Your task to perform on an android device: toggle show notifications on the lock screen Image 0: 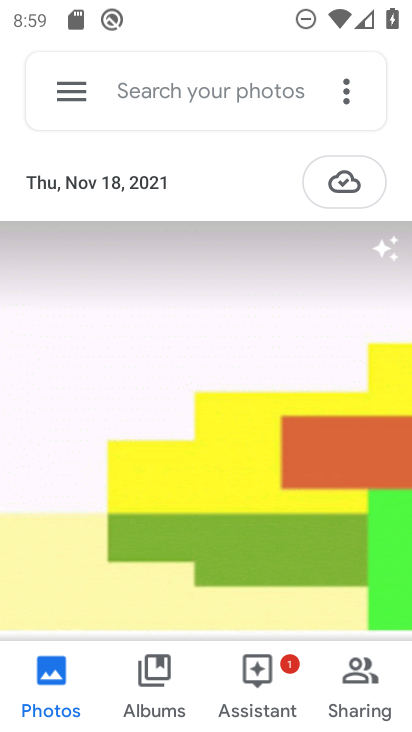
Step 0: press home button
Your task to perform on an android device: toggle show notifications on the lock screen Image 1: 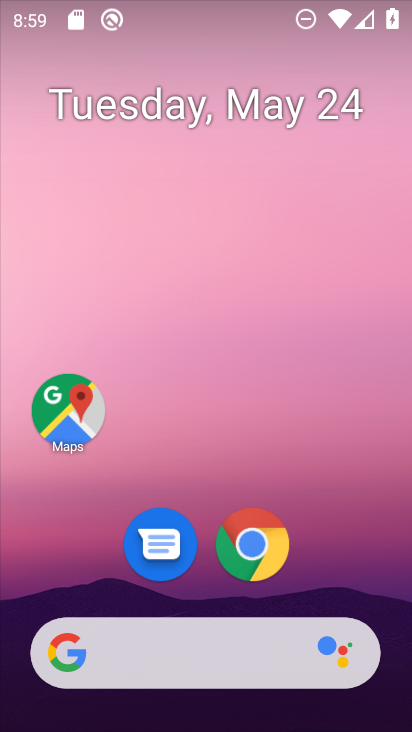
Step 1: drag from (362, 600) to (256, 158)
Your task to perform on an android device: toggle show notifications on the lock screen Image 2: 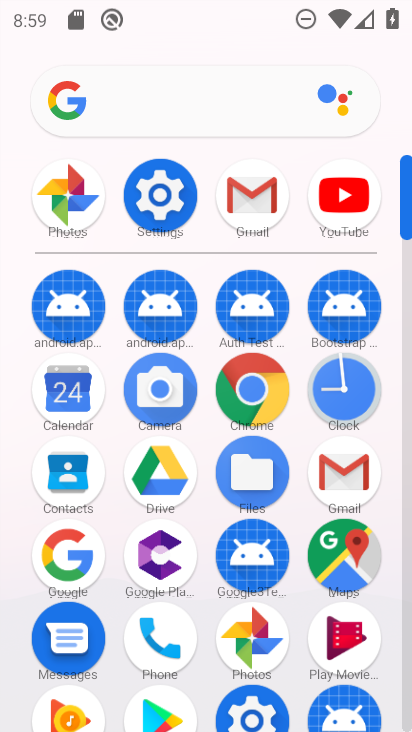
Step 2: click (175, 173)
Your task to perform on an android device: toggle show notifications on the lock screen Image 3: 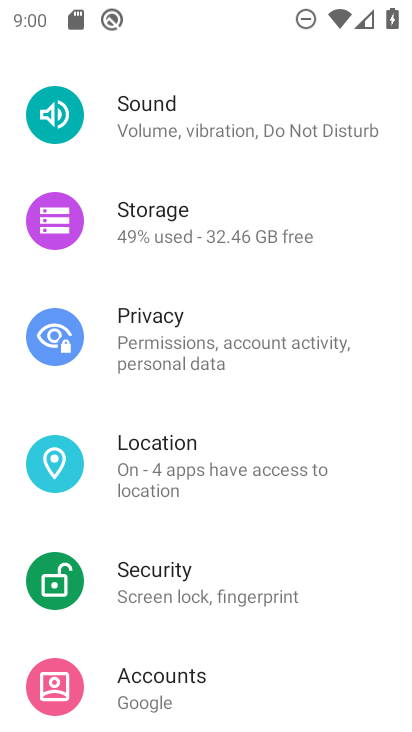
Step 3: drag from (234, 177) to (236, 651)
Your task to perform on an android device: toggle show notifications on the lock screen Image 4: 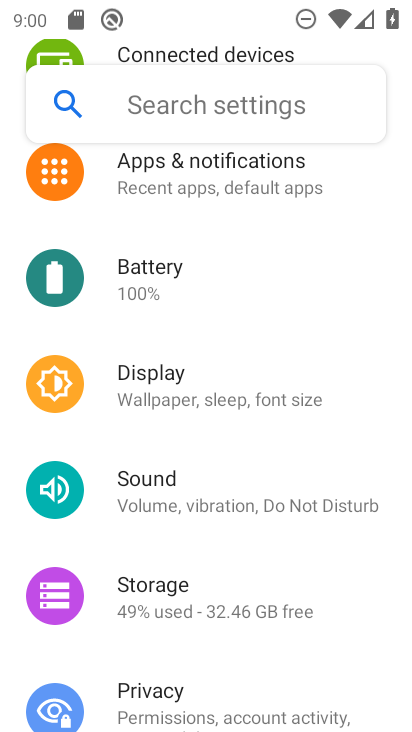
Step 4: click (191, 182)
Your task to perform on an android device: toggle show notifications on the lock screen Image 5: 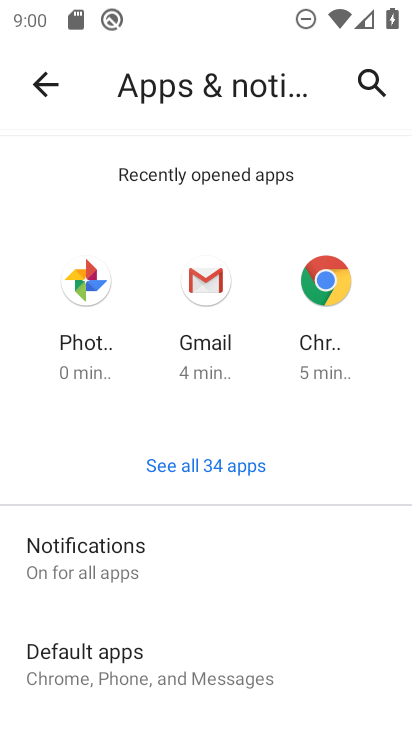
Step 5: click (249, 560)
Your task to perform on an android device: toggle show notifications on the lock screen Image 6: 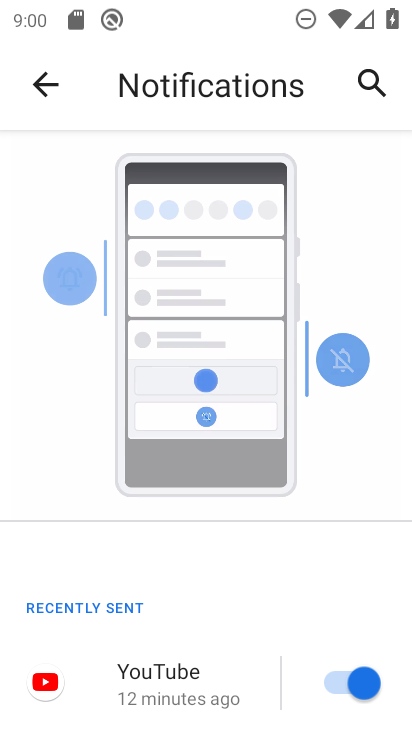
Step 6: click (249, 560)
Your task to perform on an android device: toggle show notifications on the lock screen Image 7: 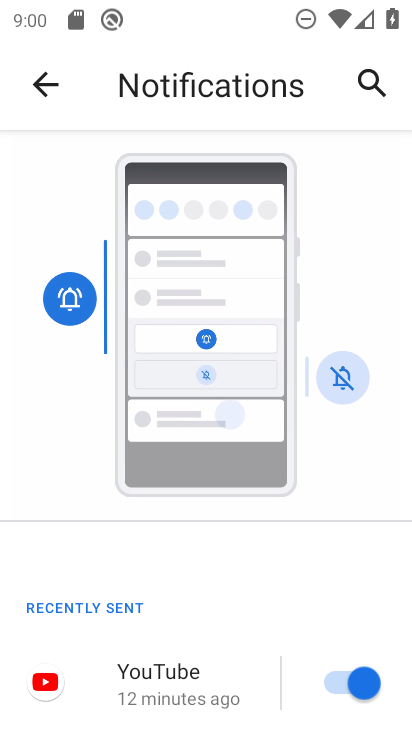
Step 7: drag from (248, 619) to (219, 170)
Your task to perform on an android device: toggle show notifications on the lock screen Image 8: 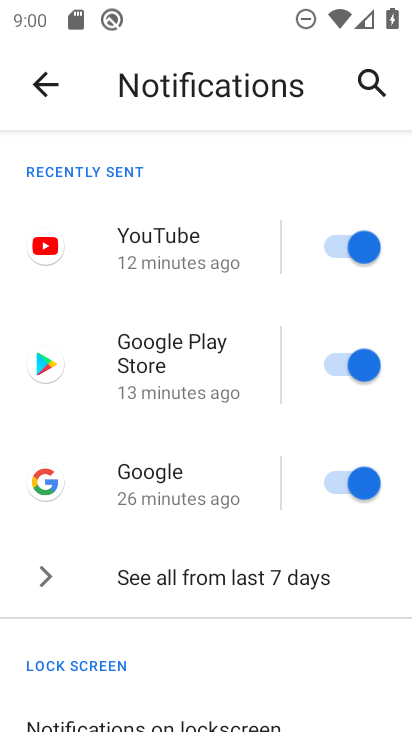
Step 8: drag from (264, 652) to (241, 76)
Your task to perform on an android device: toggle show notifications on the lock screen Image 9: 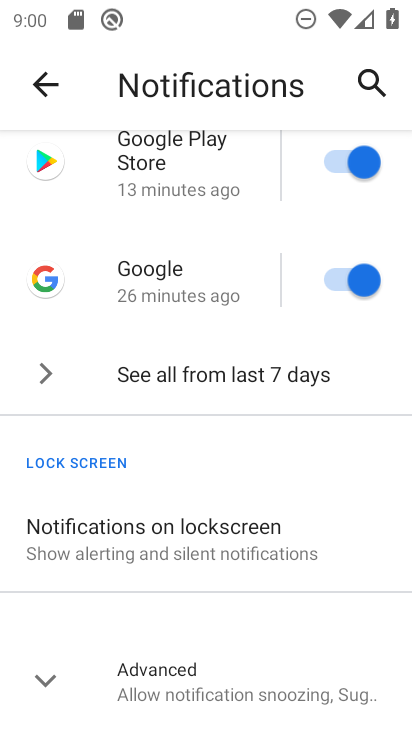
Step 9: click (259, 538)
Your task to perform on an android device: toggle show notifications on the lock screen Image 10: 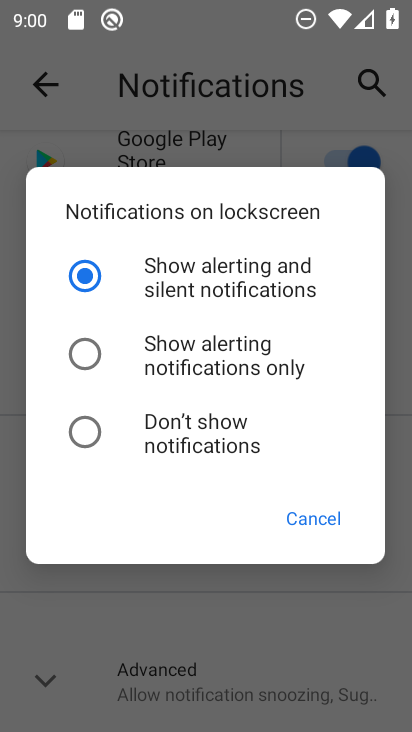
Step 10: click (275, 379)
Your task to perform on an android device: toggle show notifications on the lock screen Image 11: 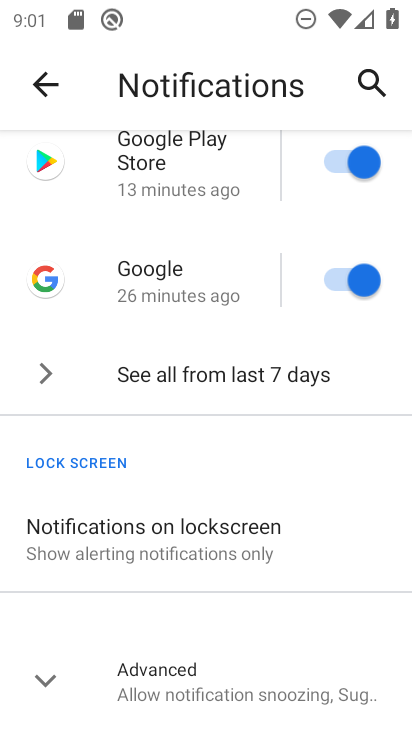
Step 11: task complete